Your task to perform on an android device: Check the weather Image 0: 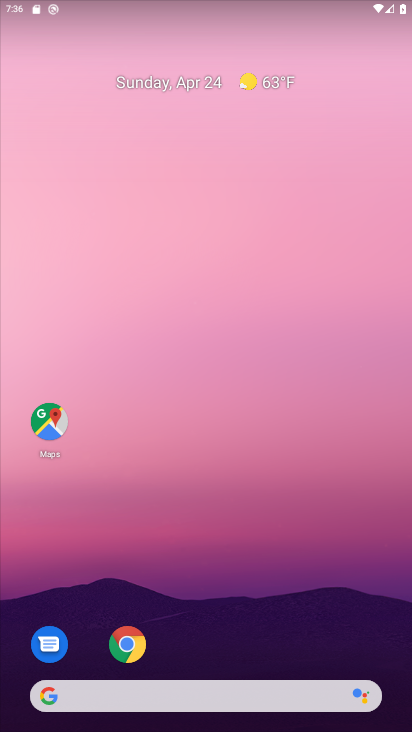
Step 0: click (258, 78)
Your task to perform on an android device: Check the weather Image 1: 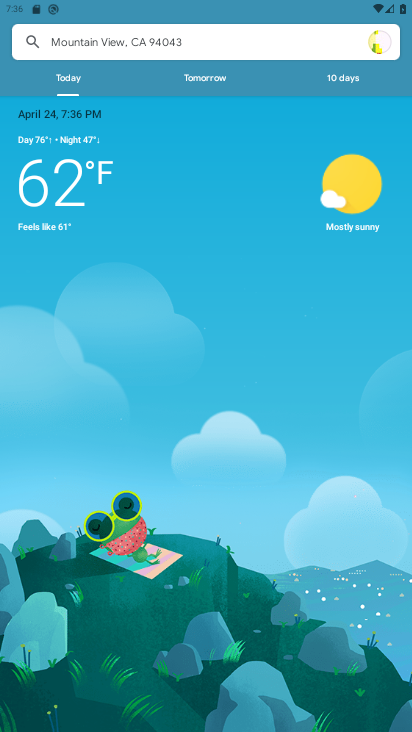
Step 1: task complete